Your task to perform on an android device: turn pop-ups on in chrome Image 0: 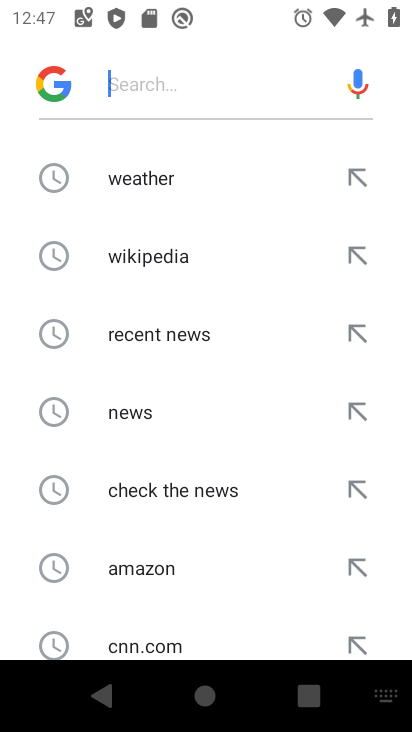
Step 0: press back button
Your task to perform on an android device: turn pop-ups on in chrome Image 1: 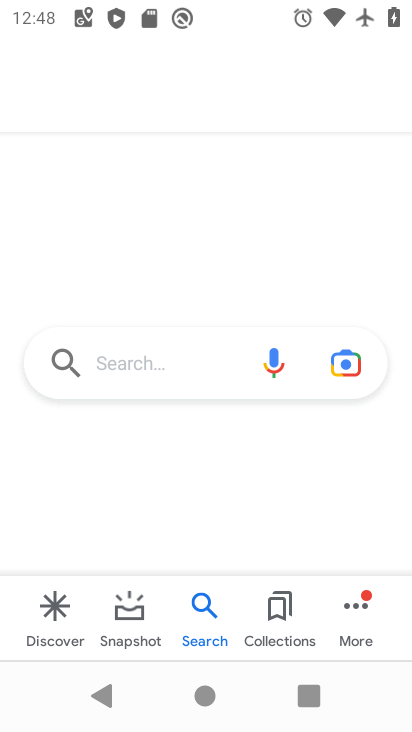
Step 1: press back button
Your task to perform on an android device: turn pop-ups on in chrome Image 2: 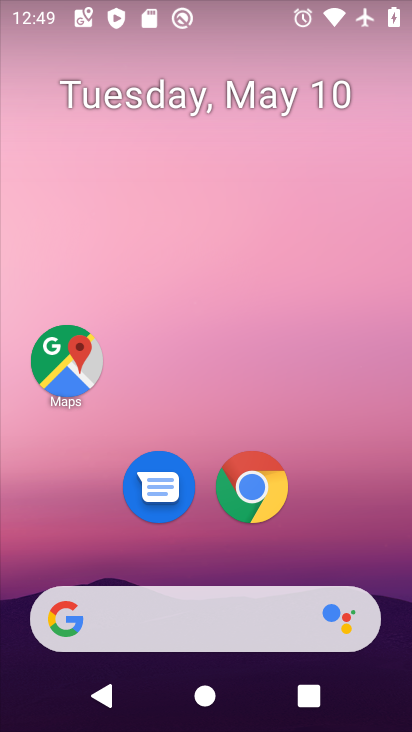
Step 2: click (257, 488)
Your task to perform on an android device: turn pop-ups on in chrome Image 3: 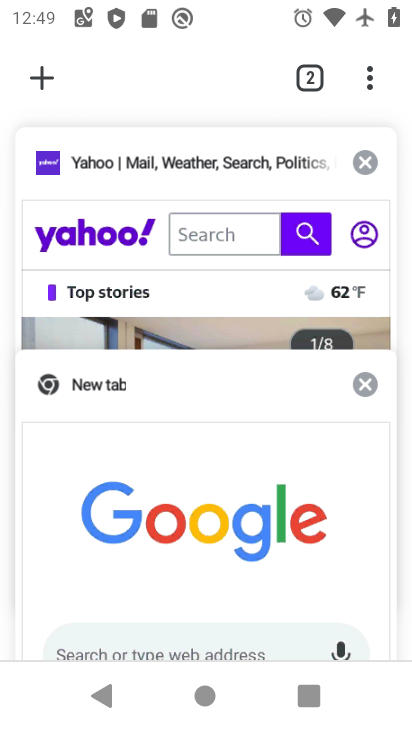
Step 3: click (365, 92)
Your task to perform on an android device: turn pop-ups on in chrome Image 4: 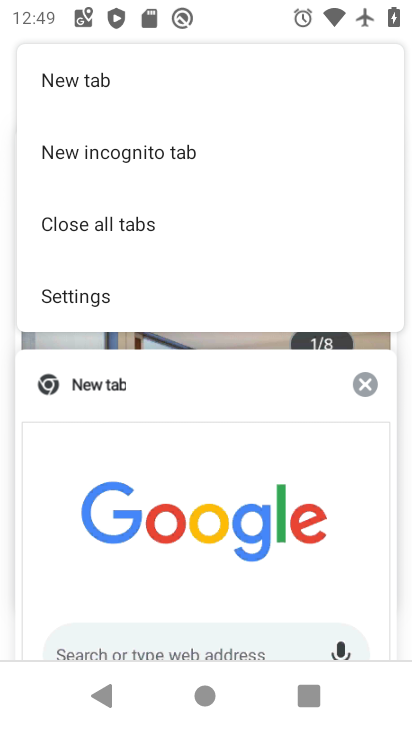
Step 4: click (205, 307)
Your task to perform on an android device: turn pop-ups on in chrome Image 5: 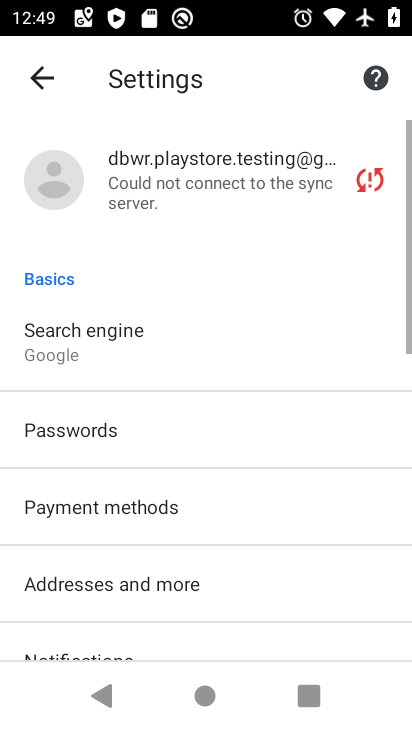
Step 5: drag from (193, 490) to (190, 405)
Your task to perform on an android device: turn pop-ups on in chrome Image 6: 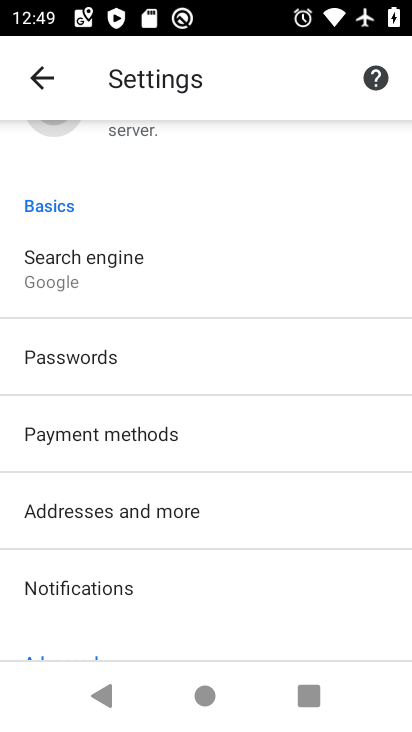
Step 6: drag from (171, 584) to (189, 507)
Your task to perform on an android device: turn pop-ups on in chrome Image 7: 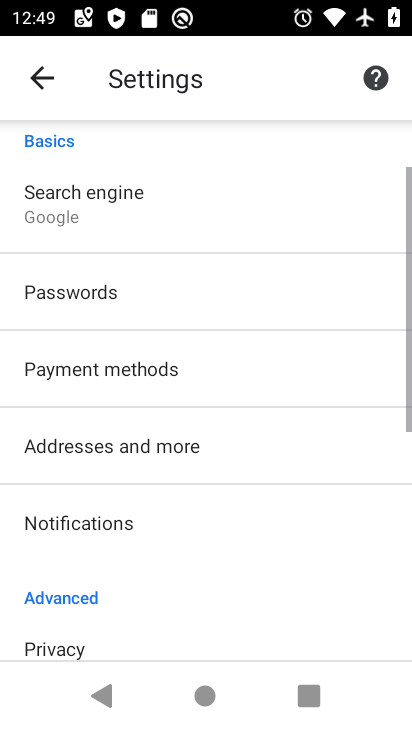
Step 7: click (189, 507)
Your task to perform on an android device: turn pop-ups on in chrome Image 8: 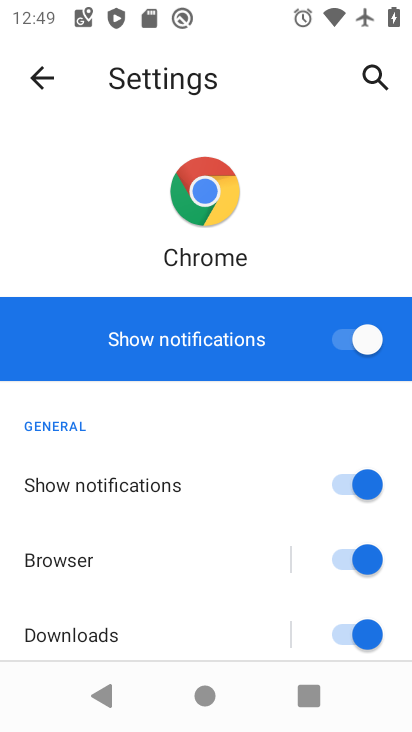
Step 8: task complete